Your task to perform on an android device: Open my contact list Image 0: 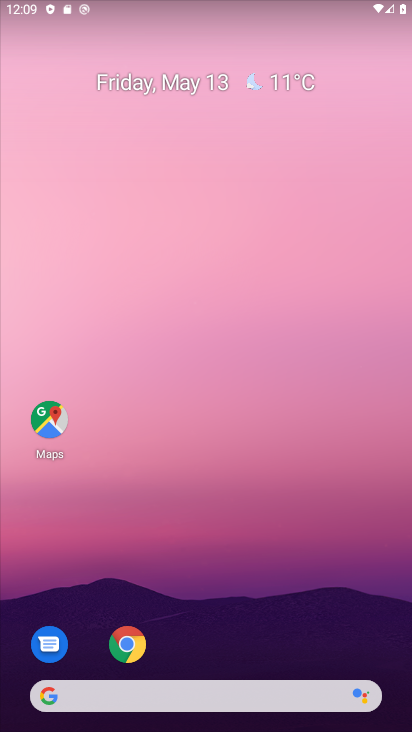
Step 0: drag from (205, 725) to (213, 191)
Your task to perform on an android device: Open my contact list Image 1: 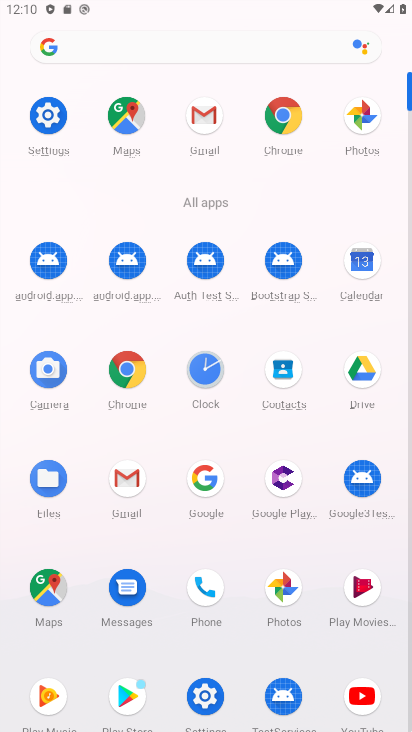
Step 1: click (281, 363)
Your task to perform on an android device: Open my contact list Image 2: 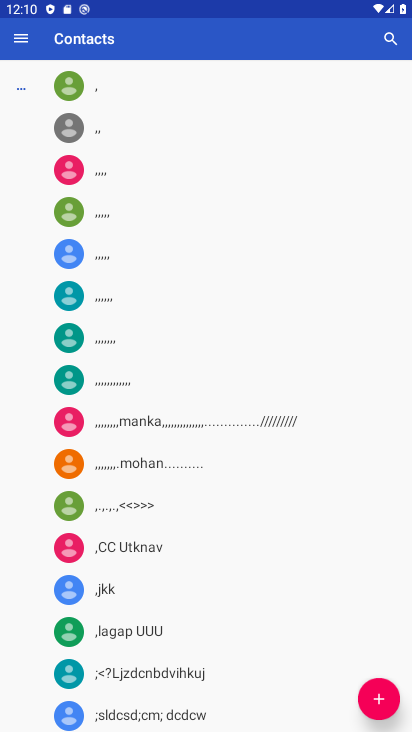
Step 2: task complete